Your task to perform on an android device: turn smart compose on in the gmail app Image 0: 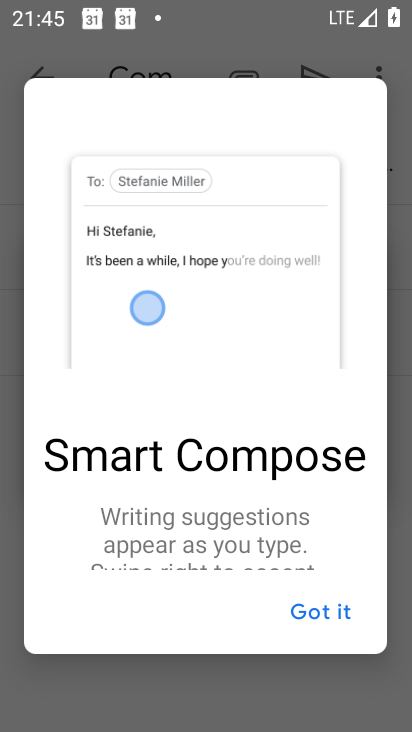
Step 0: press home button
Your task to perform on an android device: turn smart compose on in the gmail app Image 1: 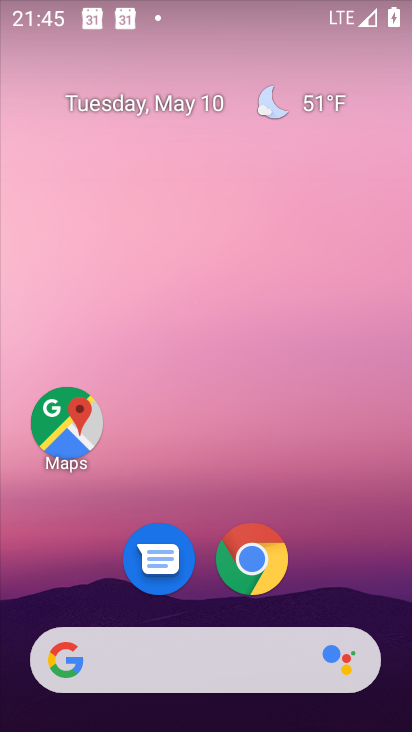
Step 1: drag from (334, 593) to (284, 140)
Your task to perform on an android device: turn smart compose on in the gmail app Image 2: 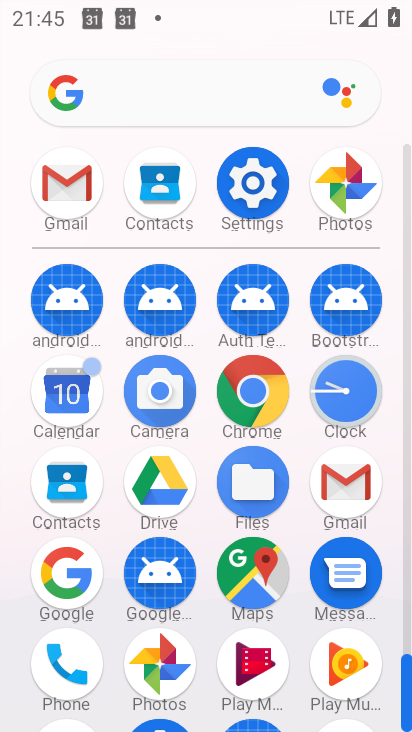
Step 2: click (65, 187)
Your task to perform on an android device: turn smart compose on in the gmail app Image 3: 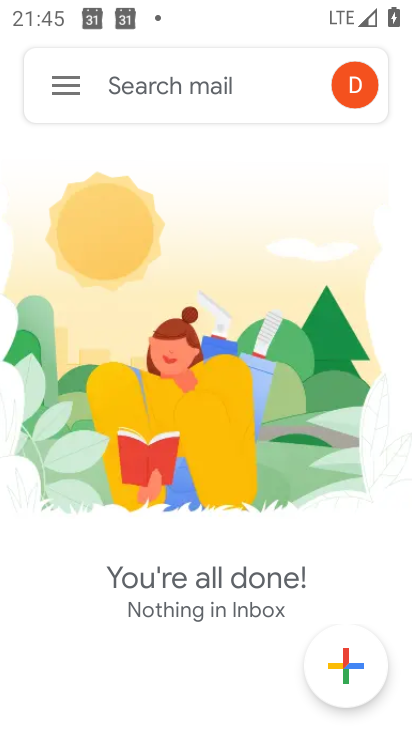
Step 3: click (69, 83)
Your task to perform on an android device: turn smart compose on in the gmail app Image 4: 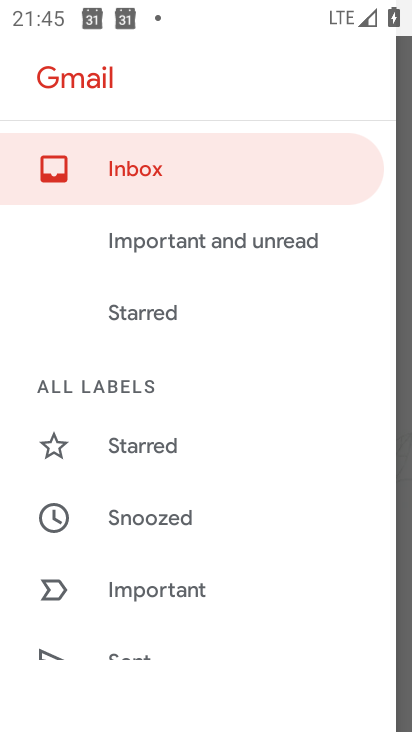
Step 4: drag from (188, 401) to (239, 301)
Your task to perform on an android device: turn smart compose on in the gmail app Image 5: 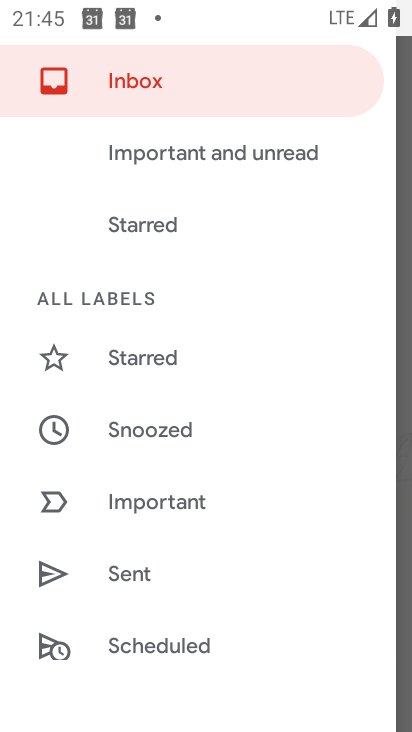
Step 5: drag from (201, 534) to (237, 436)
Your task to perform on an android device: turn smart compose on in the gmail app Image 6: 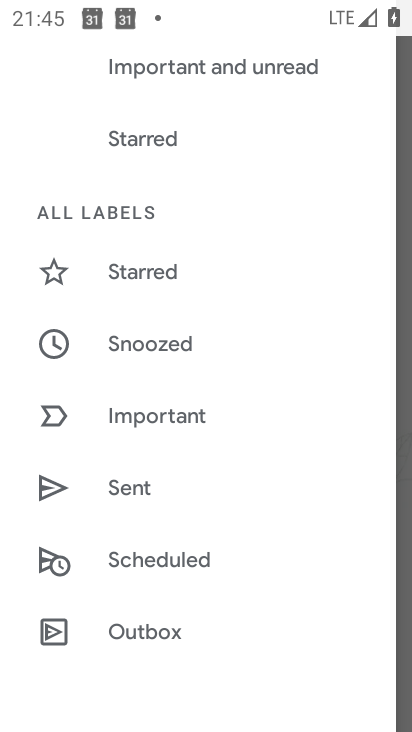
Step 6: drag from (196, 529) to (231, 441)
Your task to perform on an android device: turn smart compose on in the gmail app Image 7: 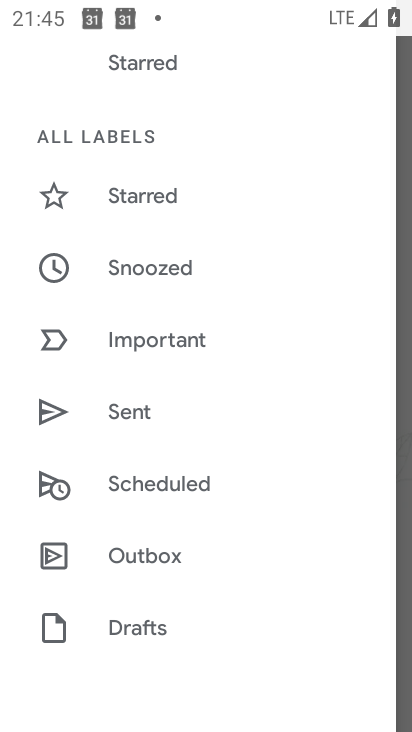
Step 7: drag from (187, 519) to (246, 433)
Your task to perform on an android device: turn smart compose on in the gmail app Image 8: 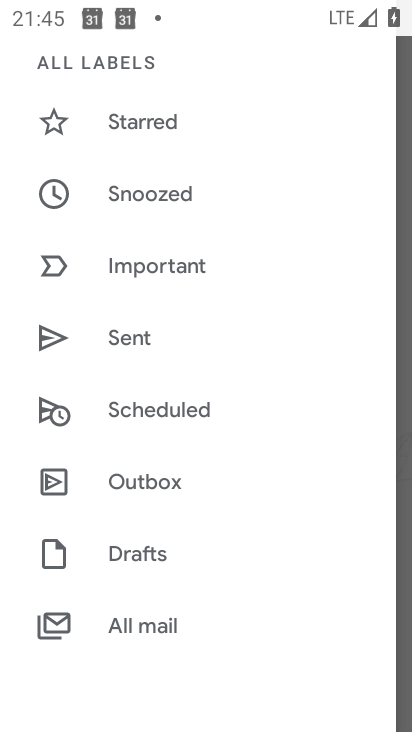
Step 8: drag from (191, 532) to (237, 444)
Your task to perform on an android device: turn smart compose on in the gmail app Image 9: 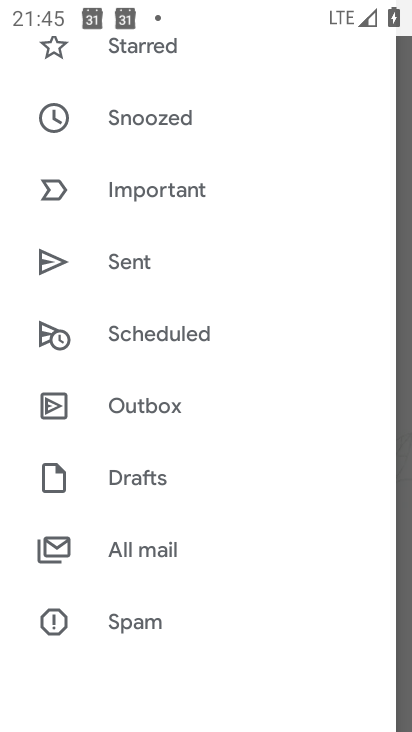
Step 9: drag from (173, 603) to (232, 487)
Your task to perform on an android device: turn smart compose on in the gmail app Image 10: 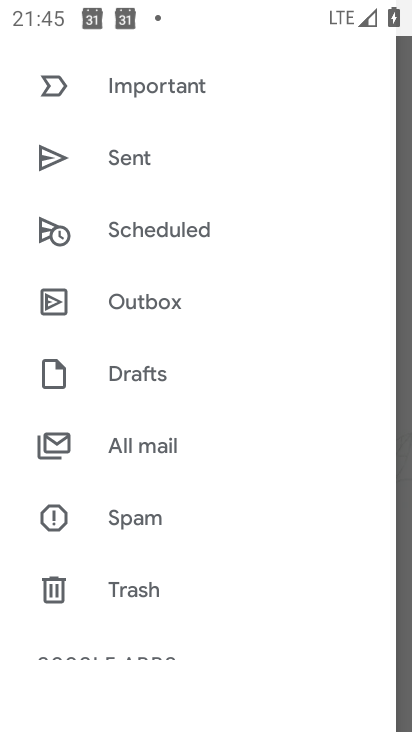
Step 10: drag from (174, 586) to (229, 492)
Your task to perform on an android device: turn smart compose on in the gmail app Image 11: 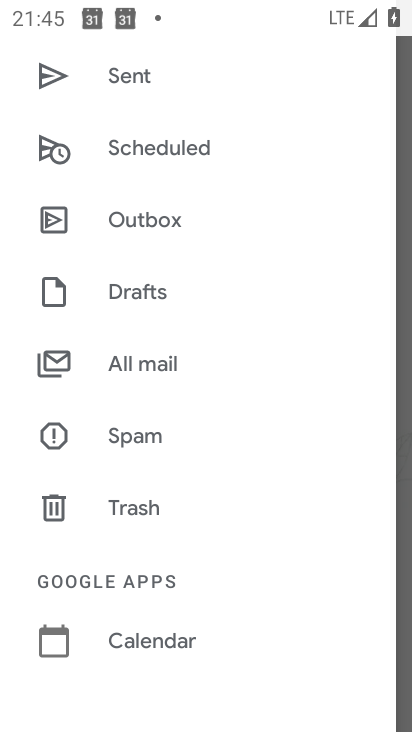
Step 11: drag from (160, 621) to (241, 522)
Your task to perform on an android device: turn smart compose on in the gmail app Image 12: 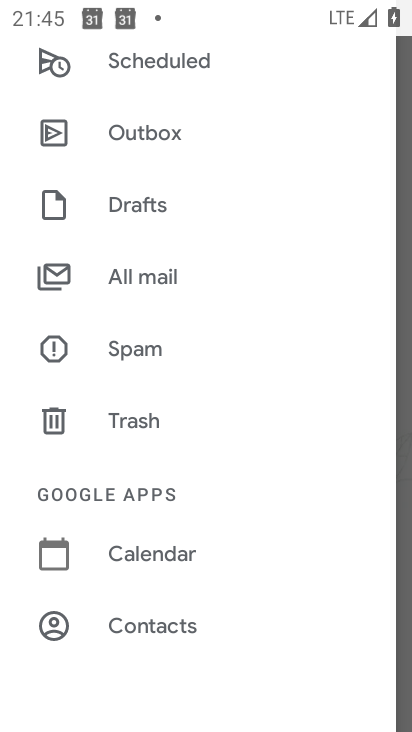
Step 12: drag from (171, 605) to (227, 501)
Your task to perform on an android device: turn smart compose on in the gmail app Image 13: 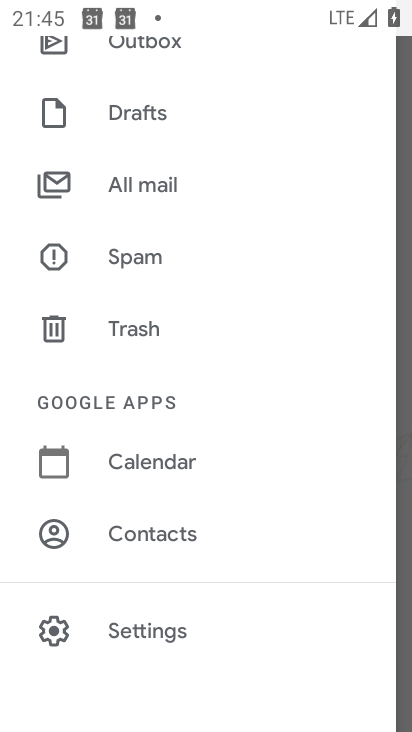
Step 13: click (154, 636)
Your task to perform on an android device: turn smart compose on in the gmail app Image 14: 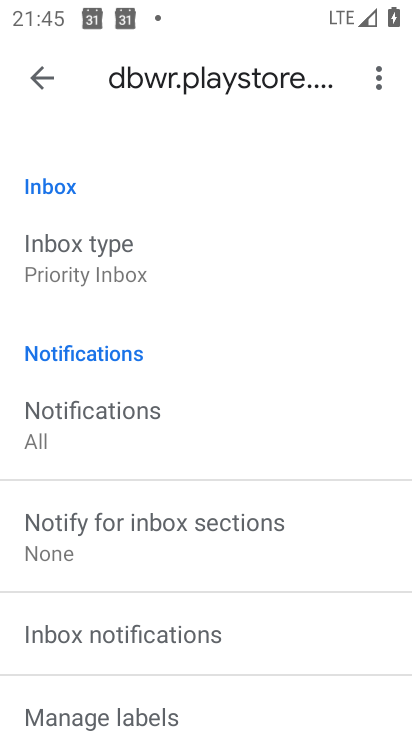
Step 14: task complete